Your task to perform on an android device: turn on airplane mode Image 0: 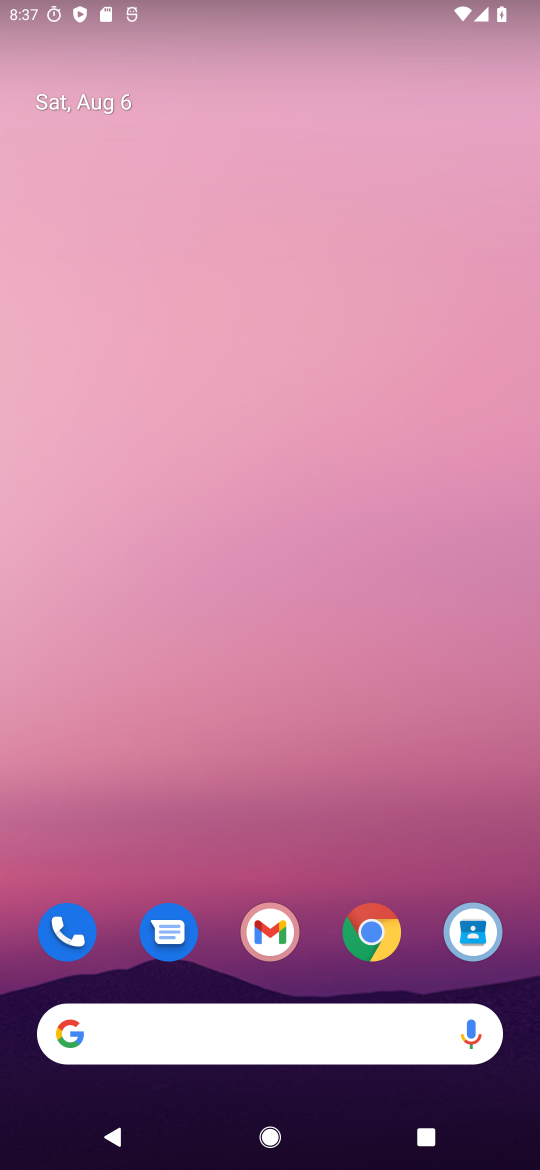
Step 0: drag from (251, 1044) to (389, 195)
Your task to perform on an android device: turn on airplane mode Image 1: 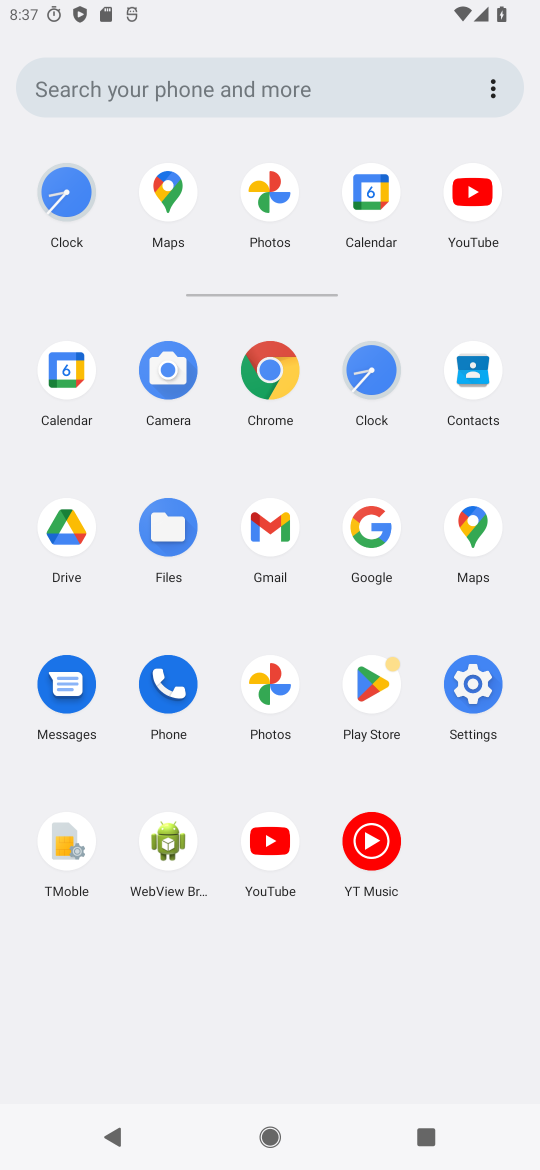
Step 1: click (478, 680)
Your task to perform on an android device: turn on airplane mode Image 2: 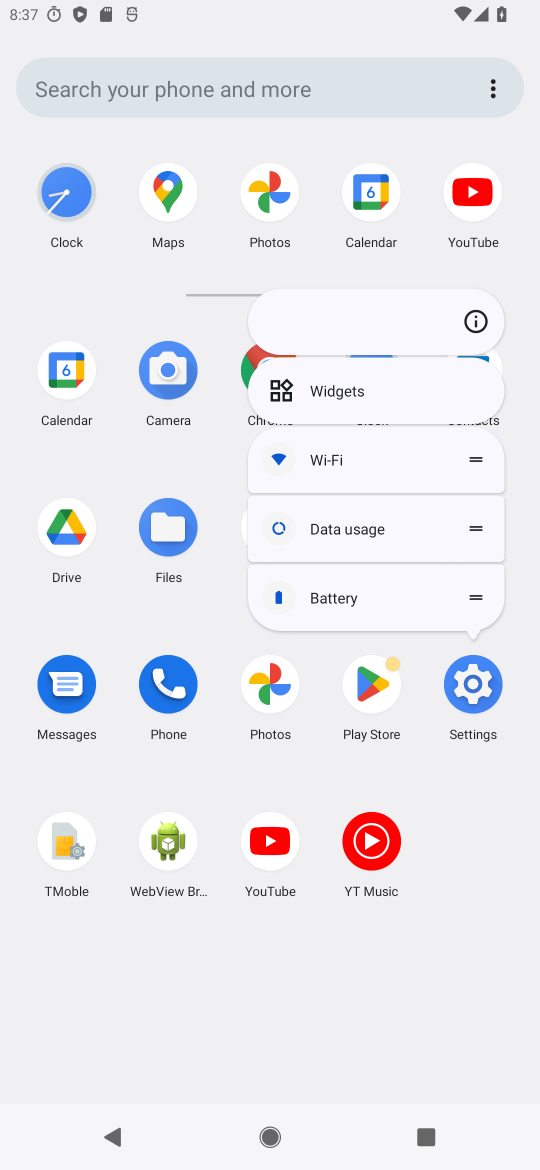
Step 2: click (472, 695)
Your task to perform on an android device: turn on airplane mode Image 3: 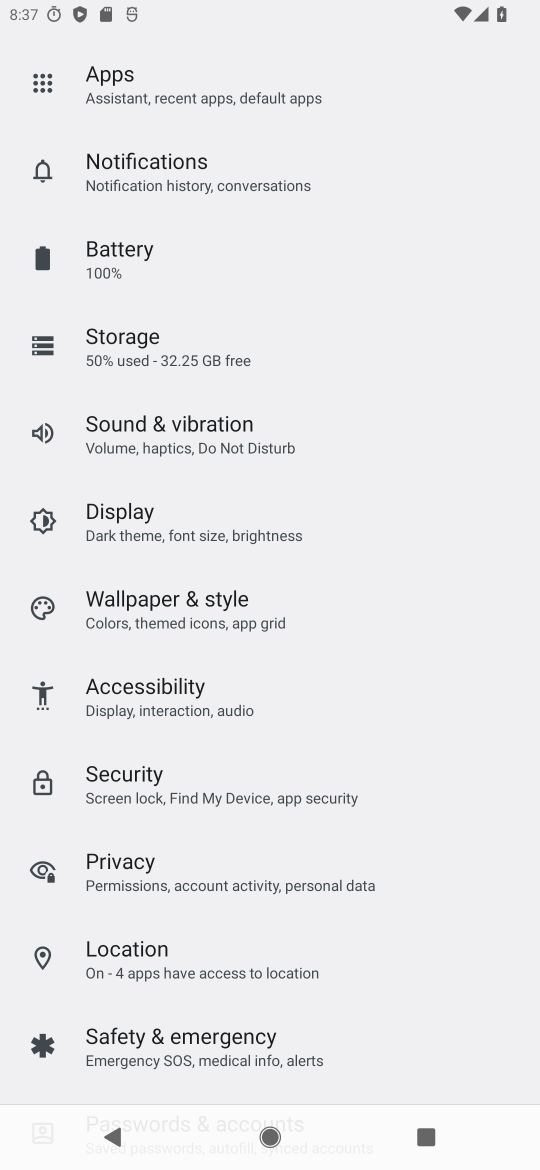
Step 3: drag from (418, 350) to (317, 864)
Your task to perform on an android device: turn on airplane mode Image 4: 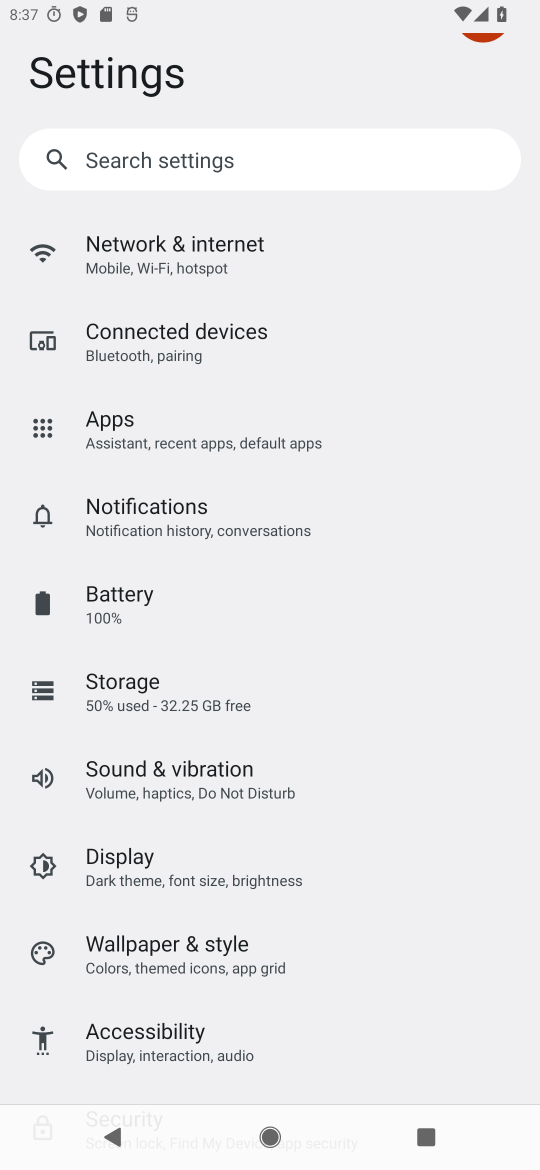
Step 4: click (185, 251)
Your task to perform on an android device: turn on airplane mode Image 5: 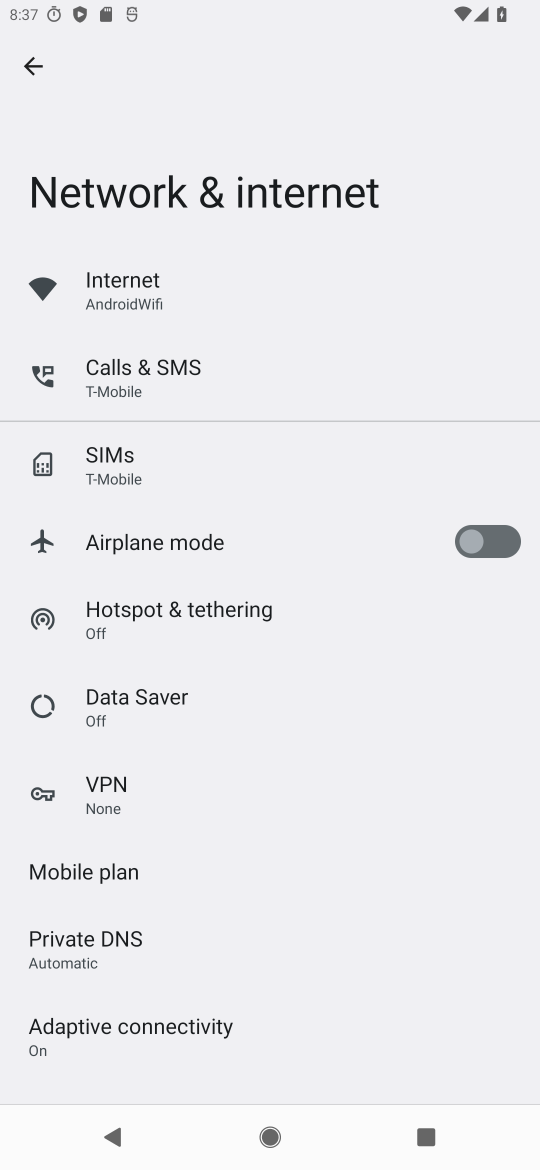
Step 5: click (505, 541)
Your task to perform on an android device: turn on airplane mode Image 6: 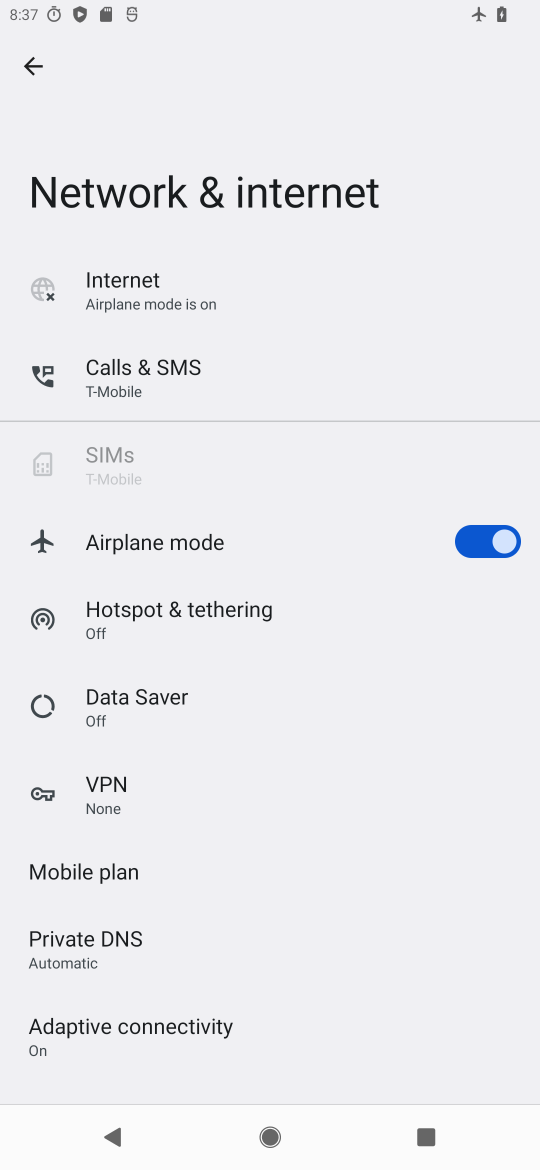
Step 6: click (474, 541)
Your task to perform on an android device: turn on airplane mode Image 7: 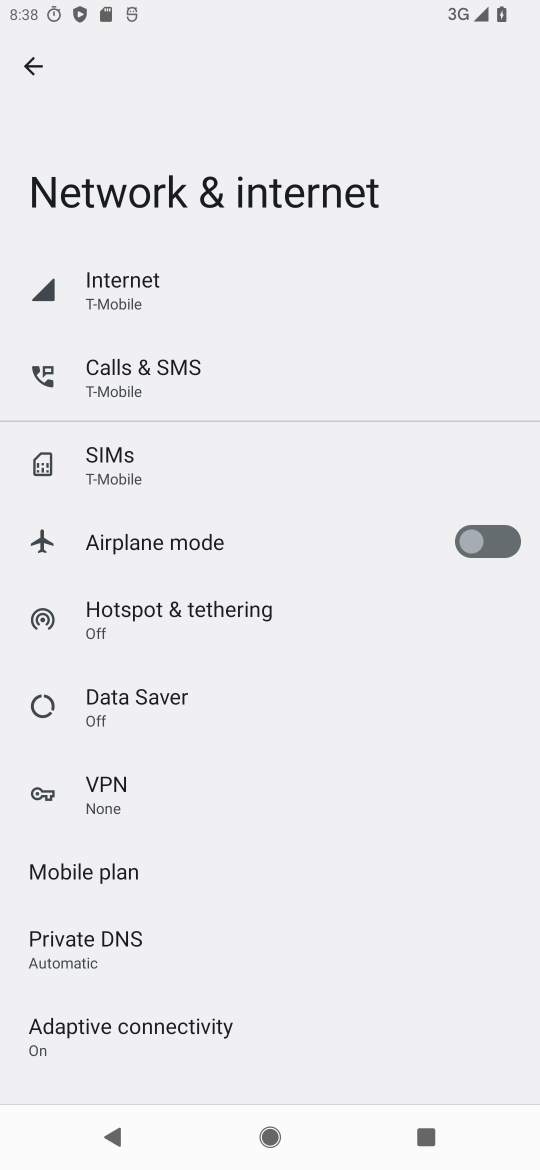
Step 7: task complete